Your task to perform on an android device: Go to notification settings Image 0: 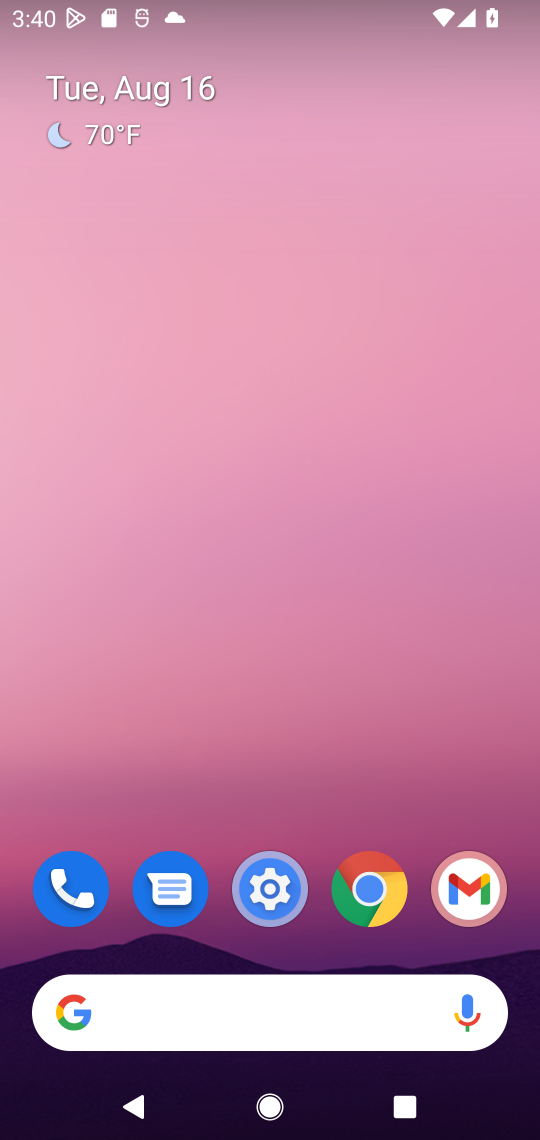
Step 0: drag from (289, 776) to (313, 549)
Your task to perform on an android device: Go to notification settings Image 1: 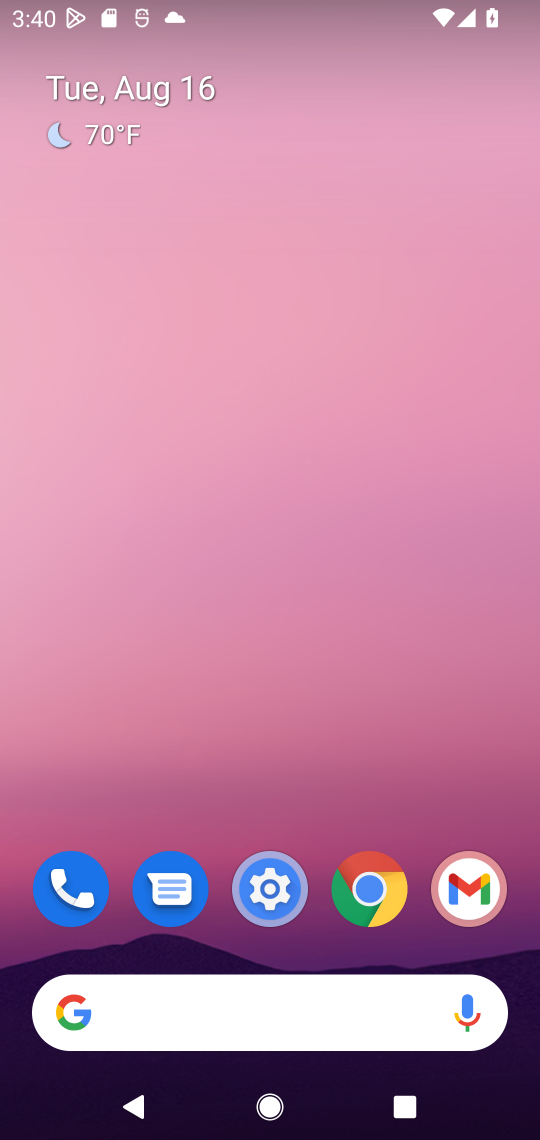
Step 1: click (277, 900)
Your task to perform on an android device: Go to notification settings Image 2: 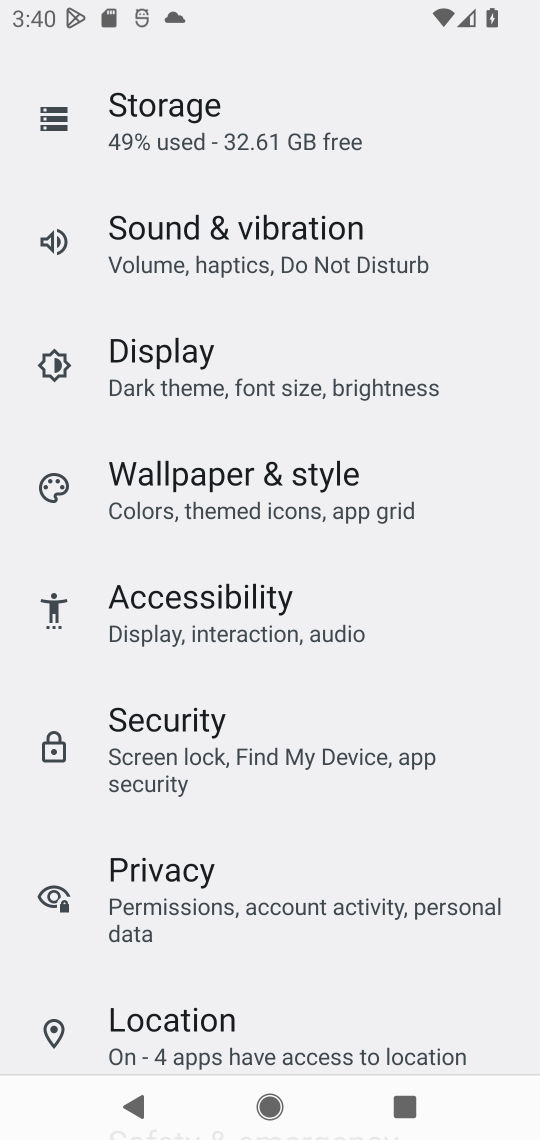
Step 2: task complete